Your task to perform on an android device: change notifications settings Image 0: 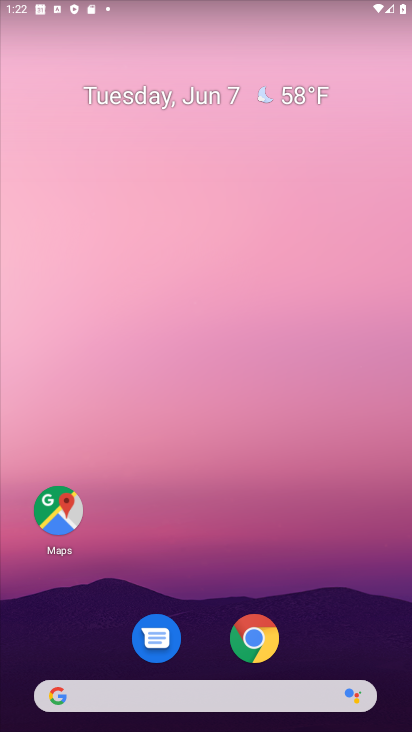
Step 0: drag from (209, 662) to (236, 273)
Your task to perform on an android device: change notifications settings Image 1: 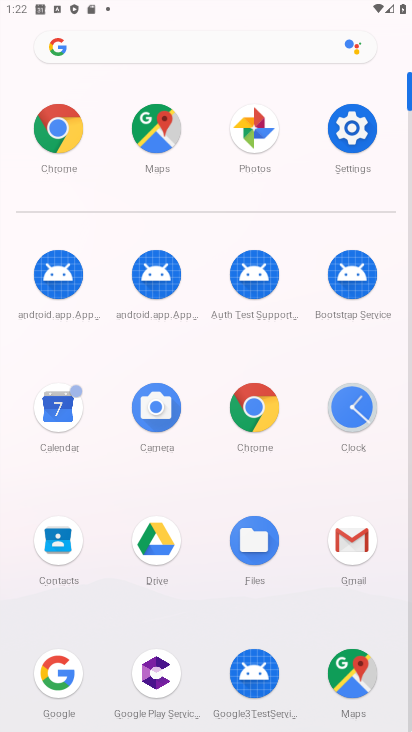
Step 1: click (352, 131)
Your task to perform on an android device: change notifications settings Image 2: 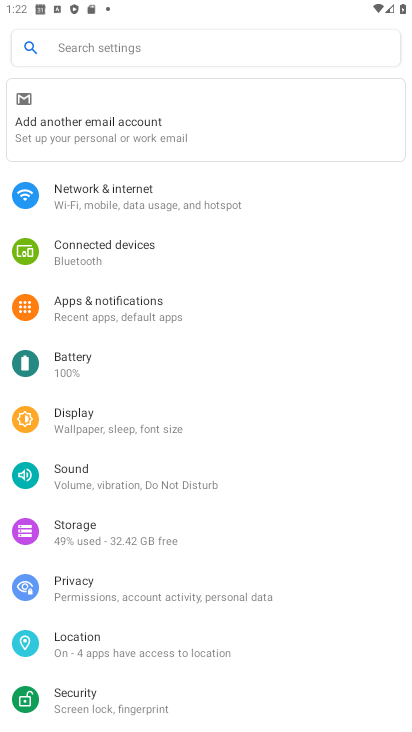
Step 2: click (119, 300)
Your task to perform on an android device: change notifications settings Image 3: 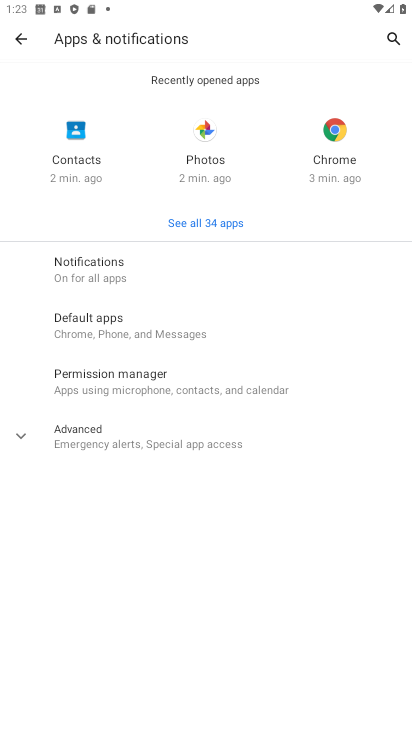
Step 3: task complete